Your task to perform on an android device: delete a single message in the gmail app Image 0: 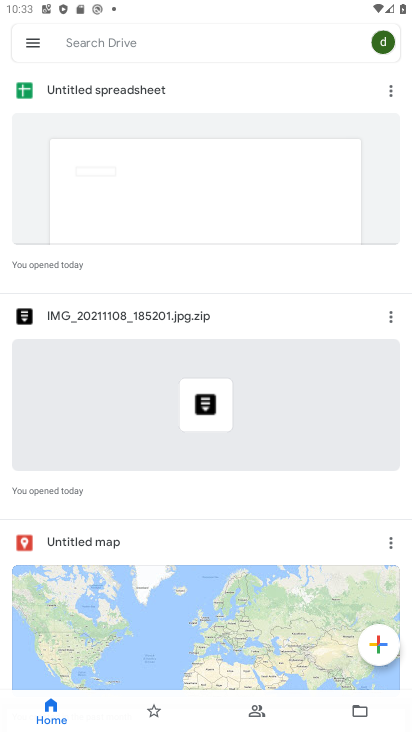
Step 0: press home button
Your task to perform on an android device: delete a single message in the gmail app Image 1: 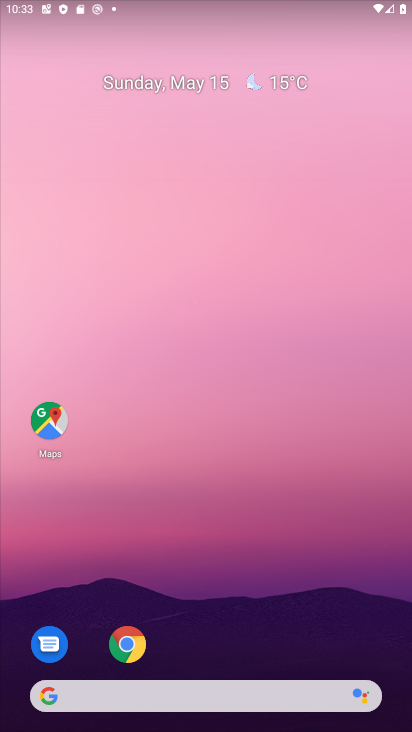
Step 1: drag from (188, 670) to (163, 299)
Your task to perform on an android device: delete a single message in the gmail app Image 2: 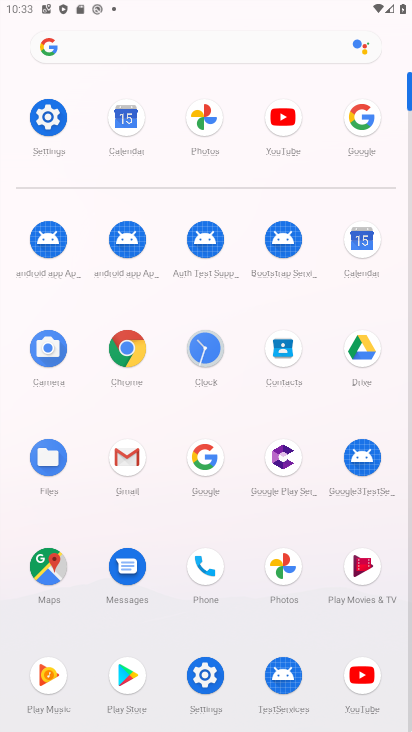
Step 2: click (121, 457)
Your task to perform on an android device: delete a single message in the gmail app Image 3: 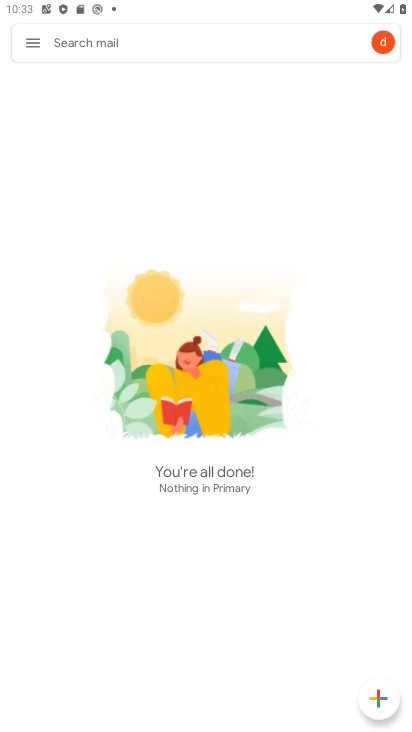
Step 3: task complete